Your task to perform on an android device: Go to location settings Image 0: 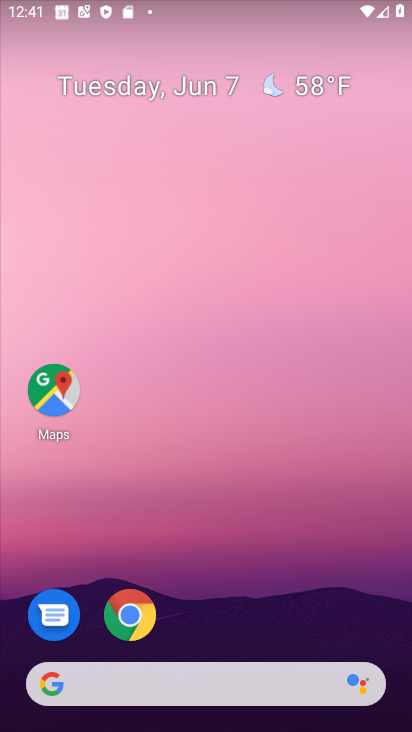
Step 0: drag from (281, 587) to (208, 154)
Your task to perform on an android device: Go to location settings Image 1: 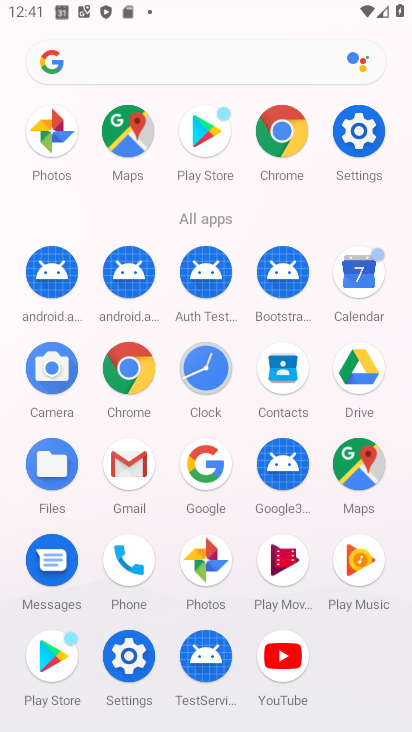
Step 1: click (359, 133)
Your task to perform on an android device: Go to location settings Image 2: 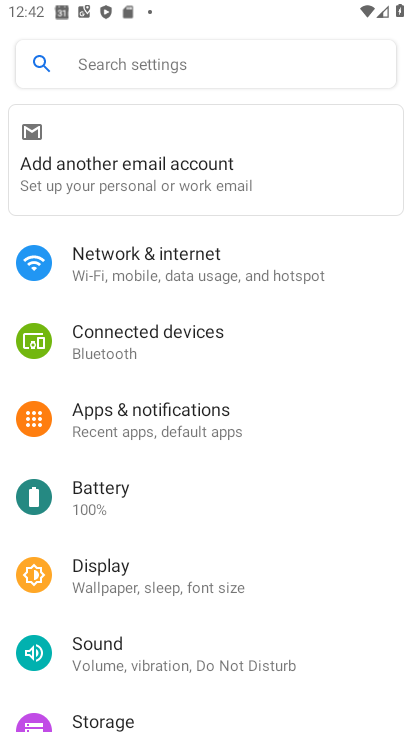
Step 2: drag from (164, 472) to (199, 263)
Your task to perform on an android device: Go to location settings Image 3: 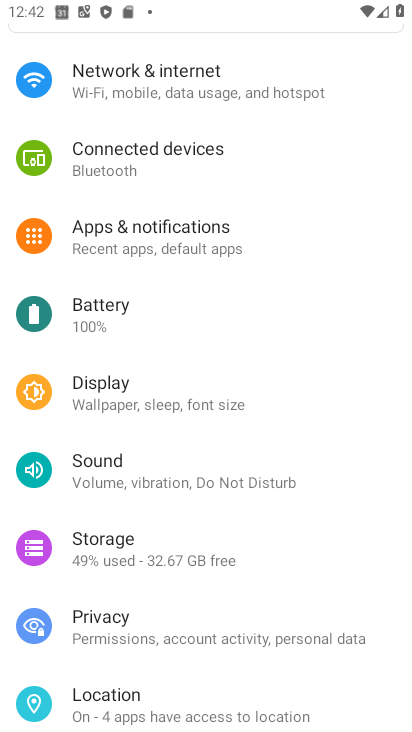
Step 3: drag from (180, 594) to (199, 446)
Your task to perform on an android device: Go to location settings Image 4: 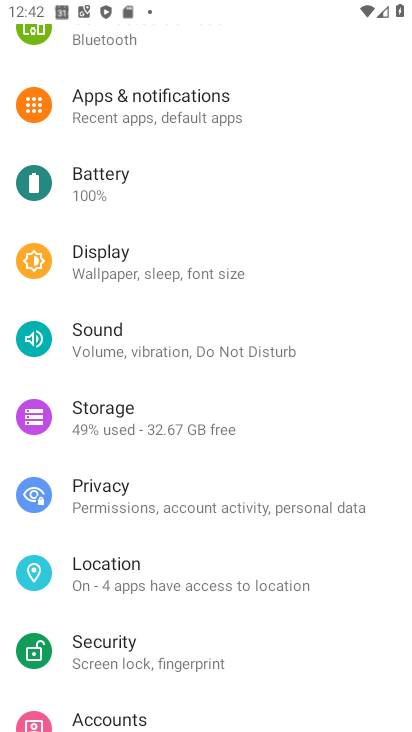
Step 4: click (175, 586)
Your task to perform on an android device: Go to location settings Image 5: 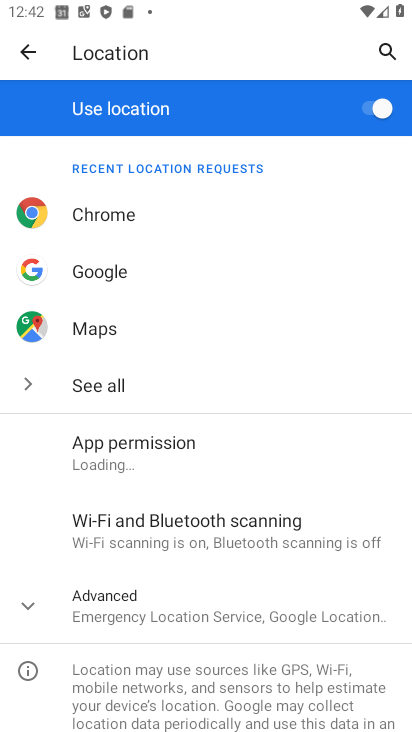
Step 5: task complete